Your task to perform on an android device: What's the weather today? Image 0: 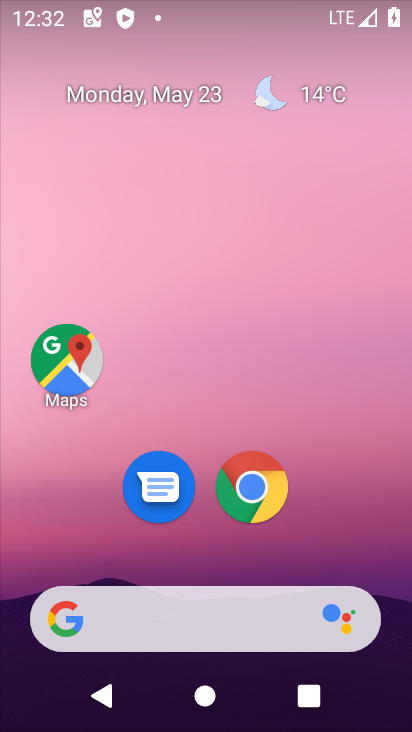
Step 0: click (315, 94)
Your task to perform on an android device: What's the weather today? Image 1: 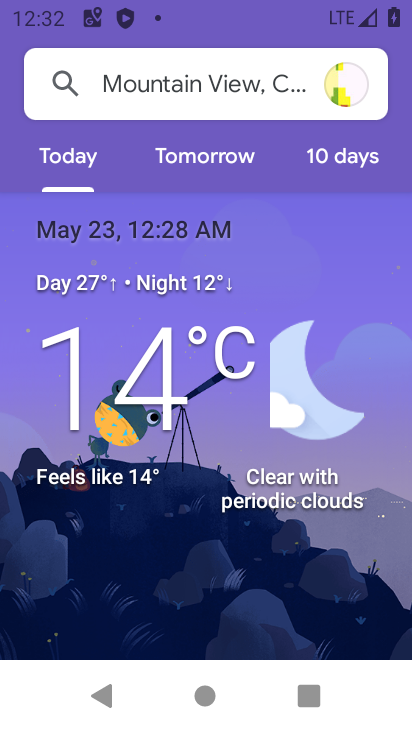
Step 1: task complete